Your task to perform on an android device: set an alarm Image 0: 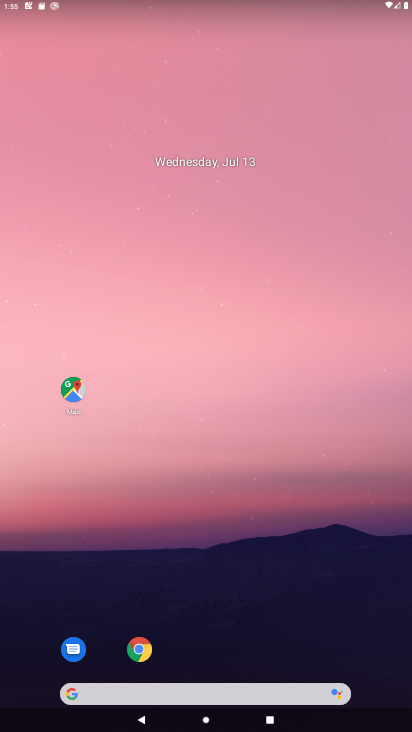
Step 0: press home button
Your task to perform on an android device: set an alarm Image 1: 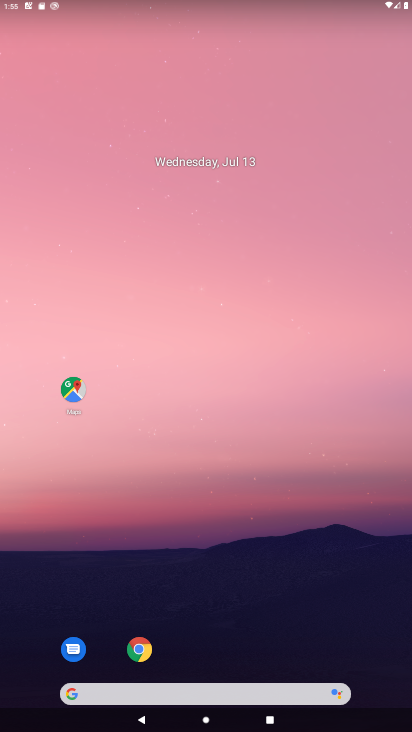
Step 1: press home button
Your task to perform on an android device: set an alarm Image 2: 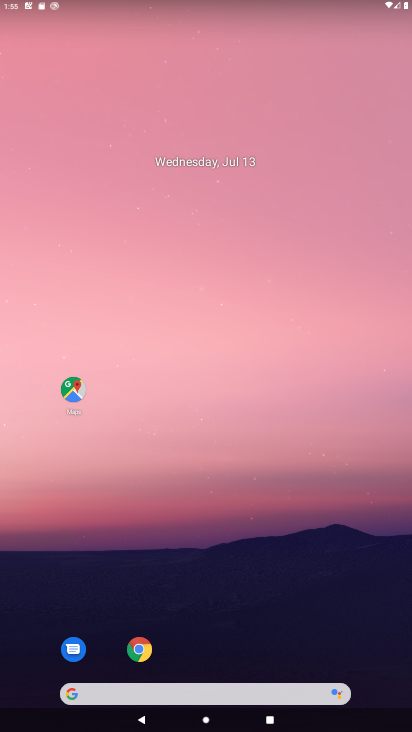
Step 2: drag from (310, 670) to (241, 82)
Your task to perform on an android device: set an alarm Image 3: 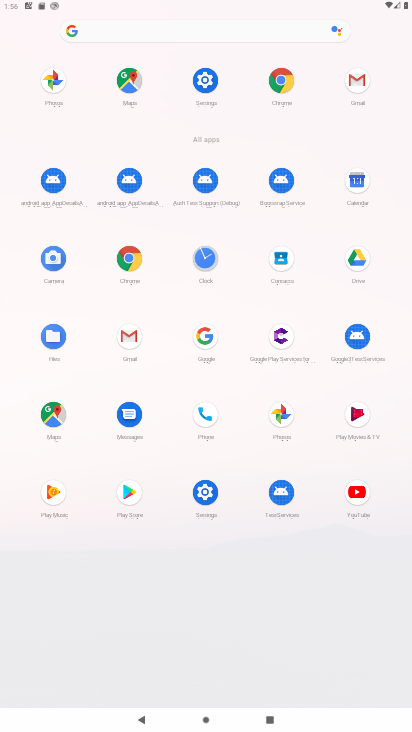
Step 3: click (194, 276)
Your task to perform on an android device: set an alarm Image 4: 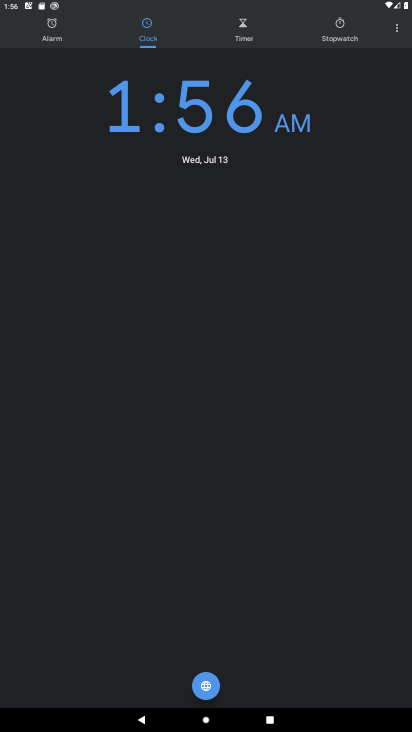
Step 4: click (83, 40)
Your task to perform on an android device: set an alarm Image 5: 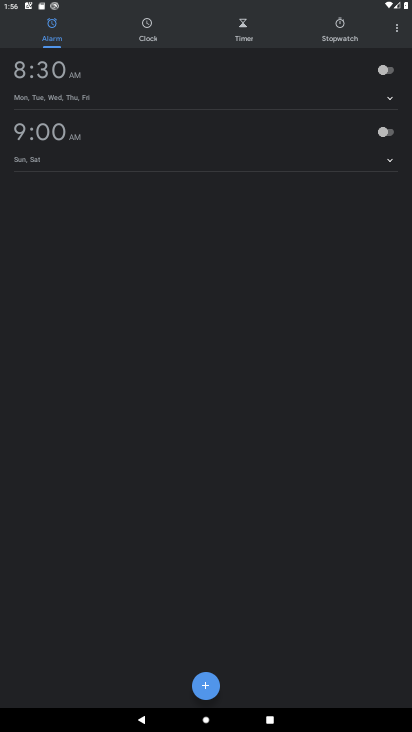
Step 5: click (213, 687)
Your task to perform on an android device: set an alarm Image 6: 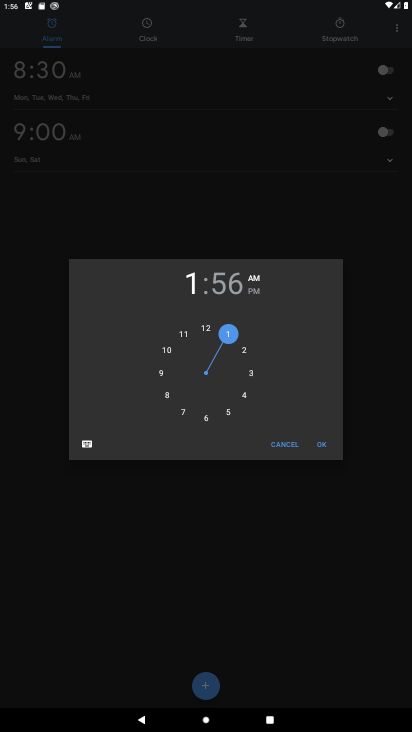
Step 6: click (197, 422)
Your task to perform on an android device: set an alarm Image 7: 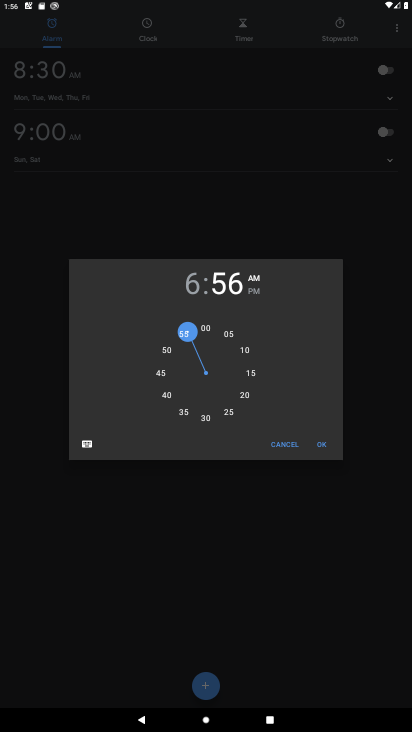
Step 7: click (197, 422)
Your task to perform on an android device: set an alarm Image 8: 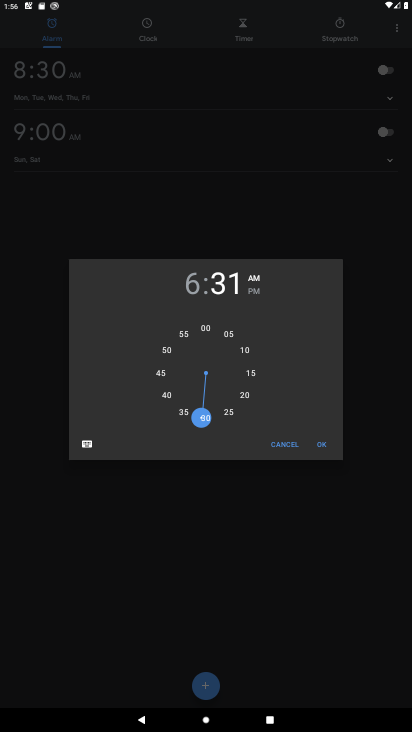
Step 8: click (329, 449)
Your task to perform on an android device: set an alarm Image 9: 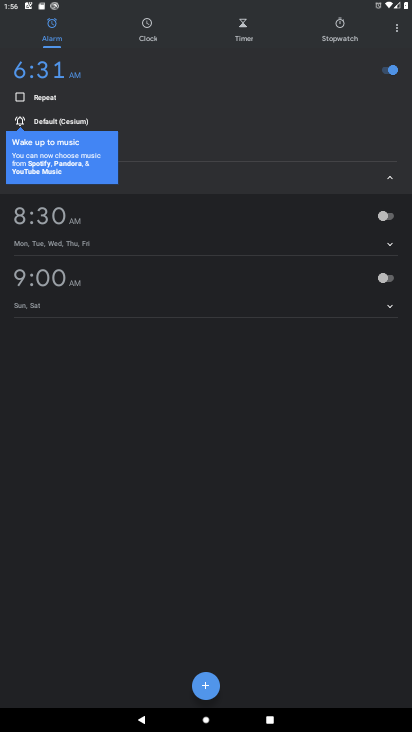
Step 9: task complete